Your task to perform on an android device: toggle data saver in the chrome app Image 0: 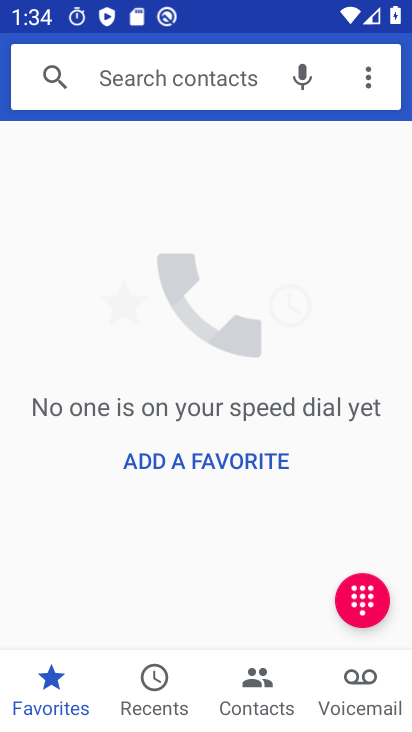
Step 0: press home button
Your task to perform on an android device: toggle data saver in the chrome app Image 1: 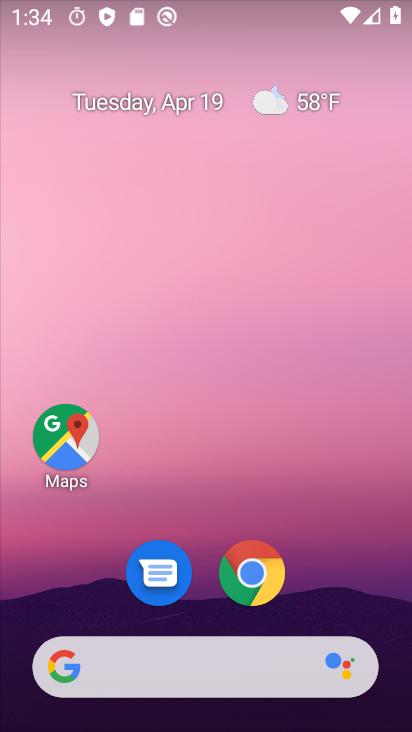
Step 1: drag from (316, 493) to (307, 78)
Your task to perform on an android device: toggle data saver in the chrome app Image 2: 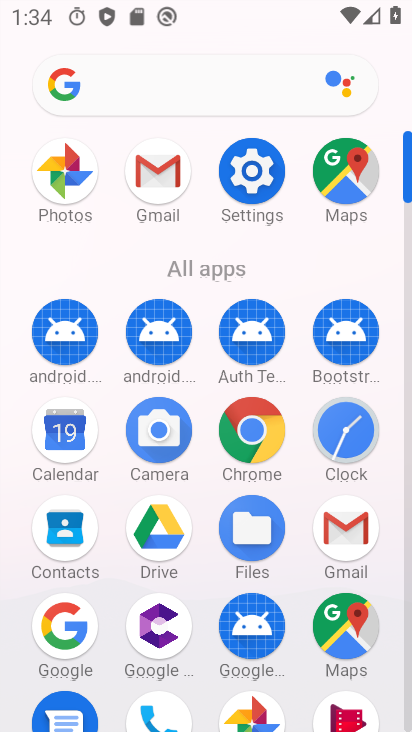
Step 2: click (248, 442)
Your task to perform on an android device: toggle data saver in the chrome app Image 3: 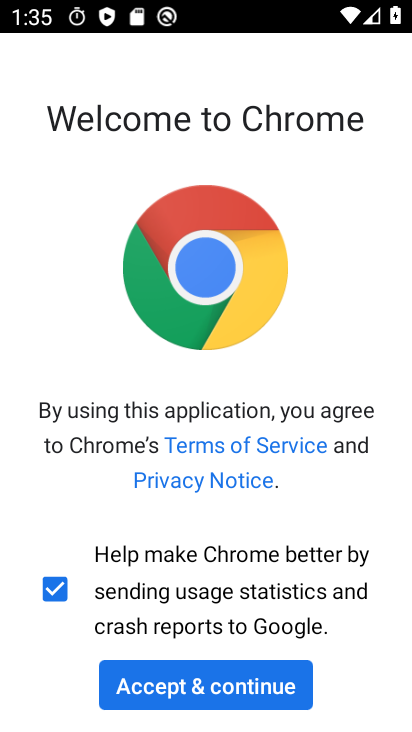
Step 3: click (193, 688)
Your task to perform on an android device: toggle data saver in the chrome app Image 4: 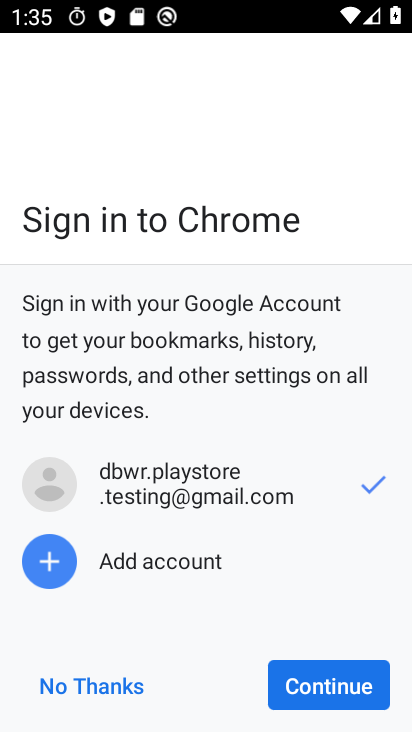
Step 4: click (65, 686)
Your task to perform on an android device: toggle data saver in the chrome app Image 5: 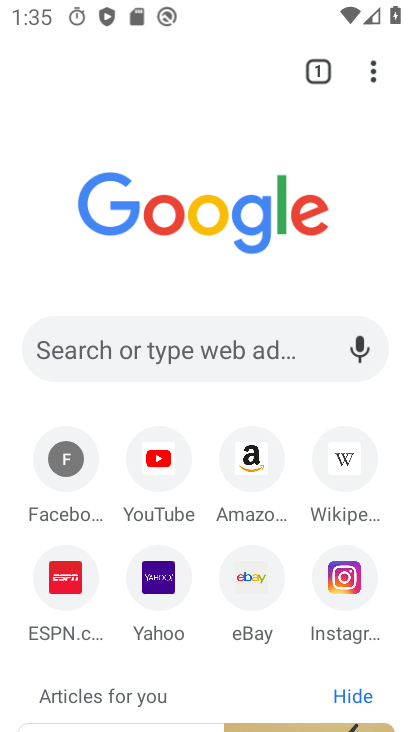
Step 5: drag from (386, 76) to (151, 618)
Your task to perform on an android device: toggle data saver in the chrome app Image 6: 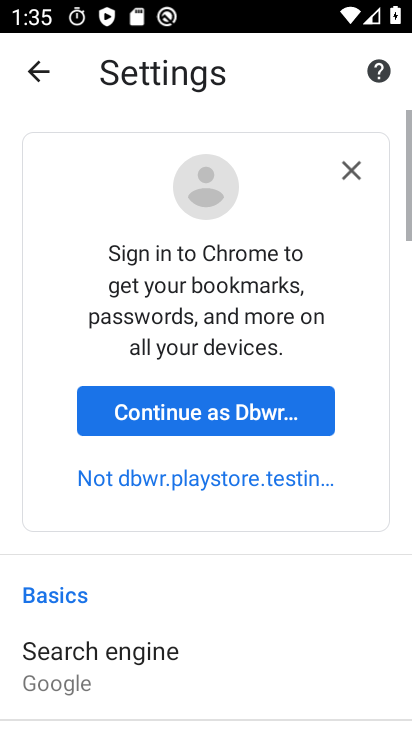
Step 6: drag from (192, 712) to (101, 330)
Your task to perform on an android device: toggle data saver in the chrome app Image 7: 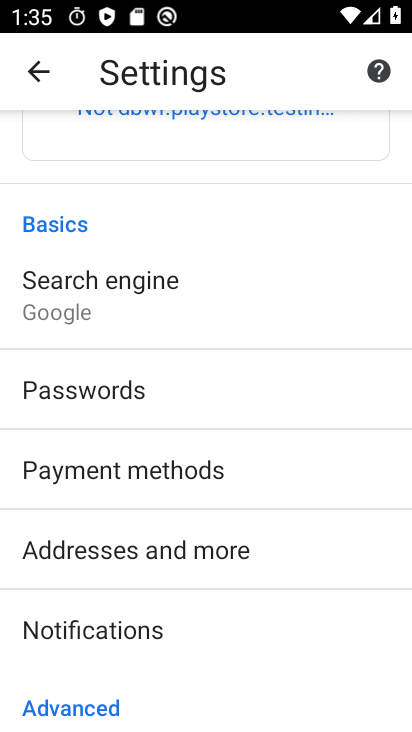
Step 7: drag from (169, 660) to (94, 254)
Your task to perform on an android device: toggle data saver in the chrome app Image 8: 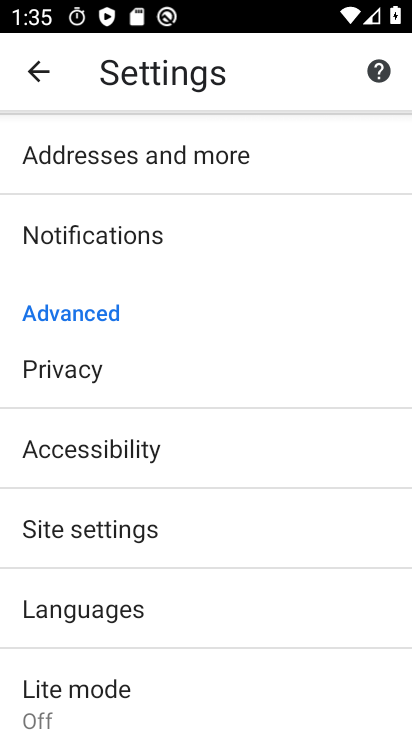
Step 8: click (136, 527)
Your task to perform on an android device: toggle data saver in the chrome app Image 9: 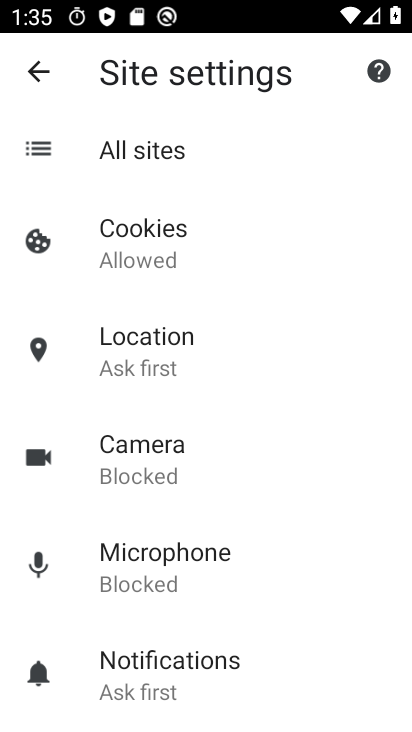
Step 9: click (34, 83)
Your task to perform on an android device: toggle data saver in the chrome app Image 10: 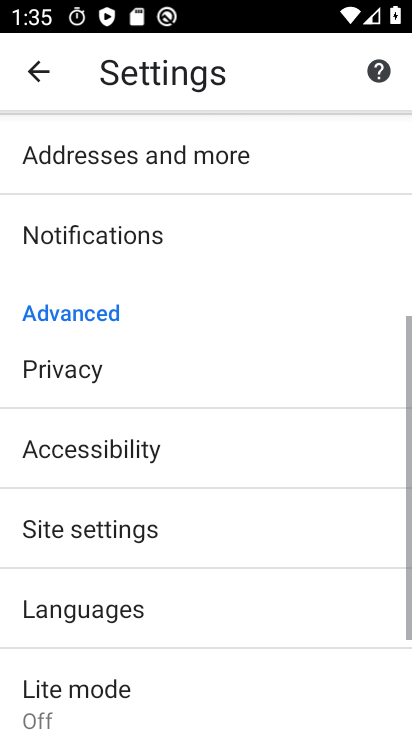
Step 10: drag from (181, 614) to (219, 272)
Your task to perform on an android device: toggle data saver in the chrome app Image 11: 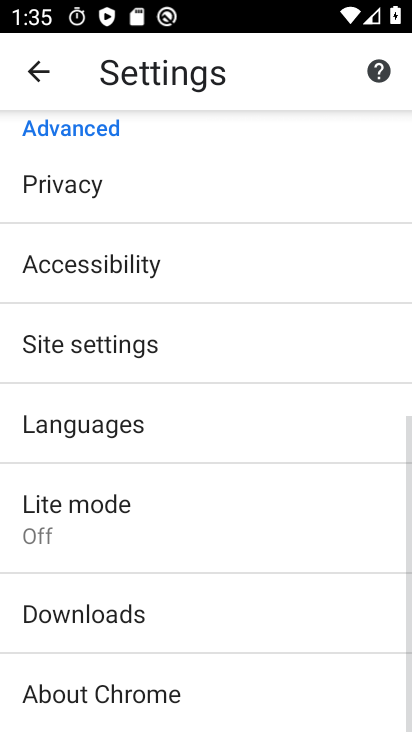
Step 11: click (131, 529)
Your task to perform on an android device: toggle data saver in the chrome app Image 12: 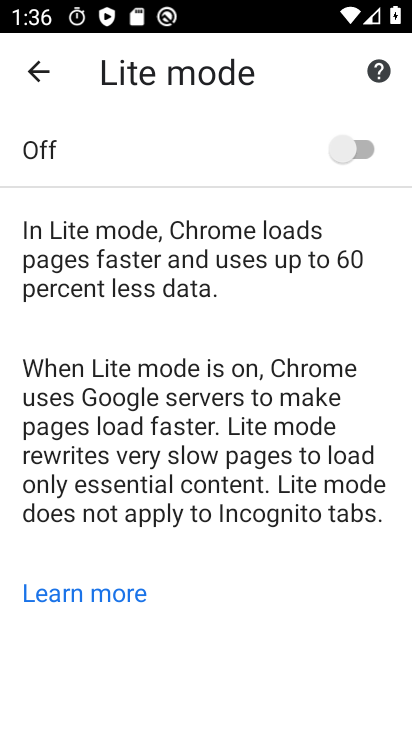
Step 12: click (352, 149)
Your task to perform on an android device: toggle data saver in the chrome app Image 13: 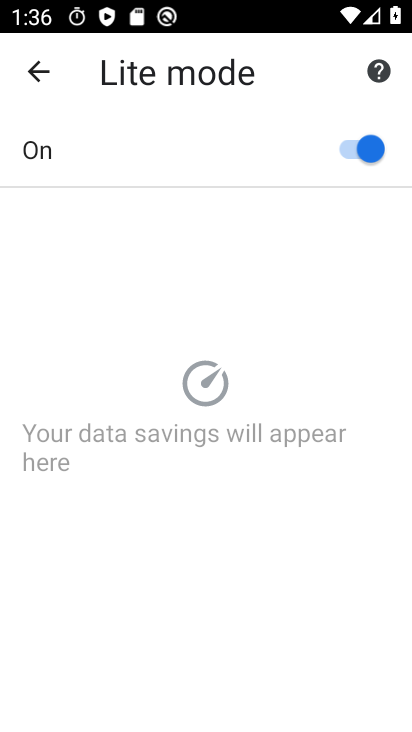
Step 13: task complete